Your task to perform on an android device: turn on airplane mode Image 0: 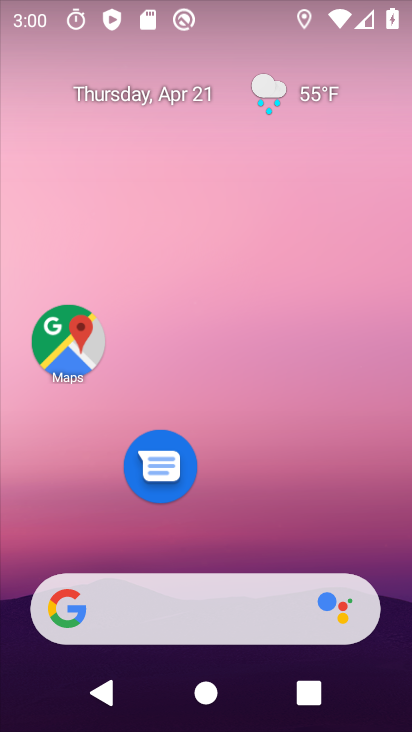
Step 0: drag from (269, 554) to (317, 129)
Your task to perform on an android device: turn on airplane mode Image 1: 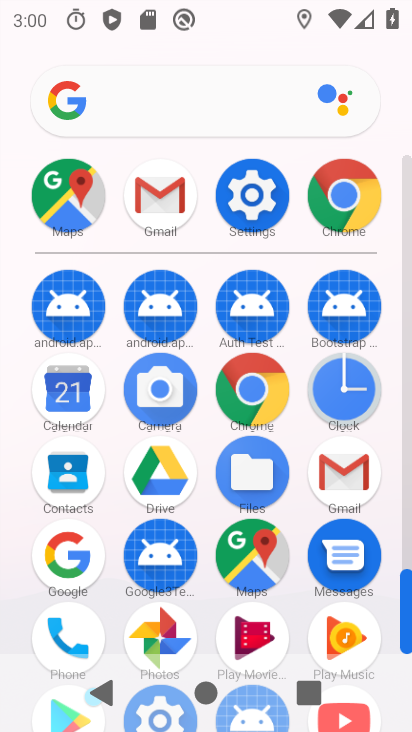
Step 1: click (243, 194)
Your task to perform on an android device: turn on airplane mode Image 2: 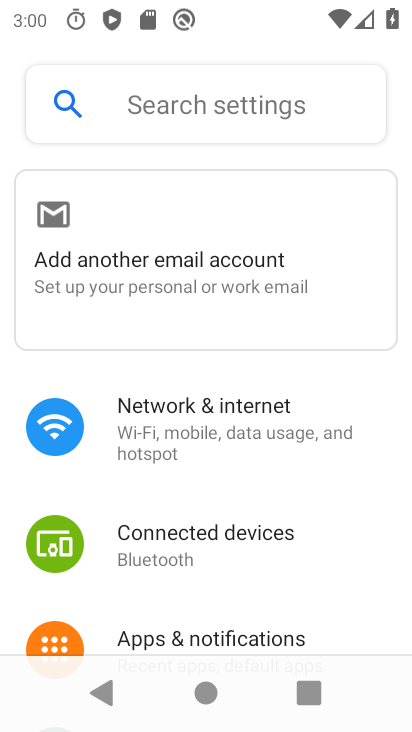
Step 2: click (266, 437)
Your task to perform on an android device: turn on airplane mode Image 3: 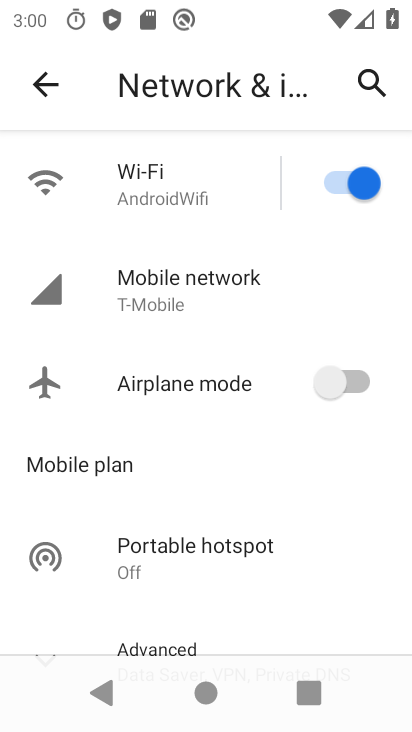
Step 3: click (354, 383)
Your task to perform on an android device: turn on airplane mode Image 4: 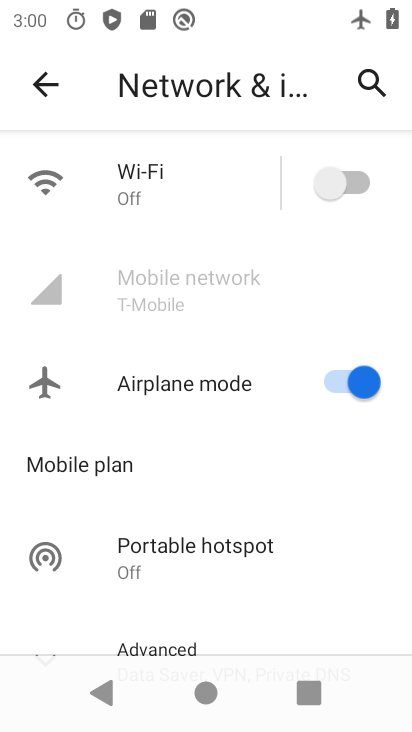
Step 4: task complete